Your task to perform on an android device: turn off picture-in-picture Image 0: 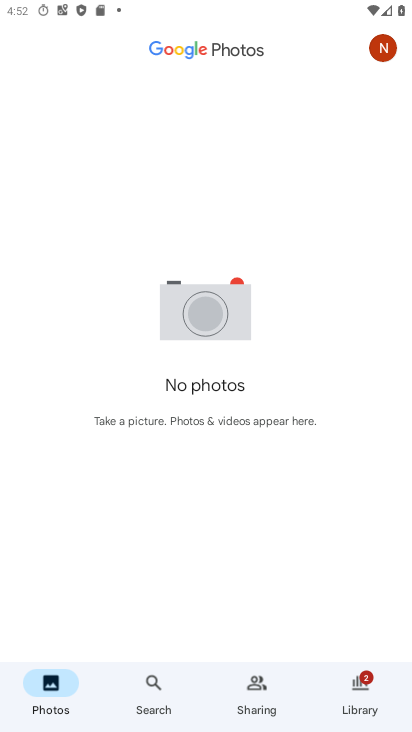
Step 0: click (388, 45)
Your task to perform on an android device: turn off picture-in-picture Image 1: 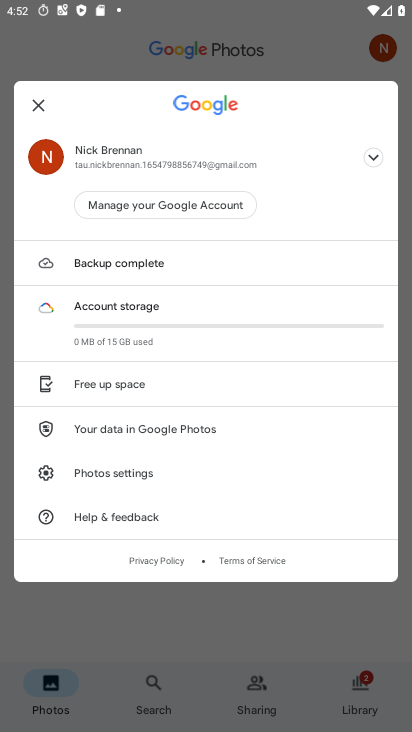
Step 1: click (129, 466)
Your task to perform on an android device: turn off picture-in-picture Image 2: 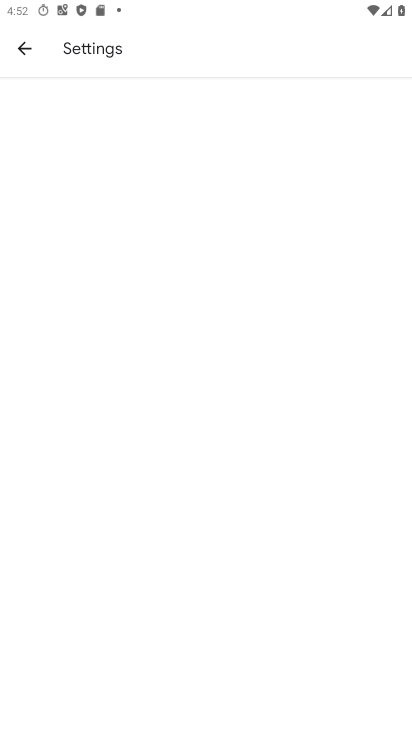
Step 2: press home button
Your task to perform on an android device: turn off picture-in-picture Image 3: 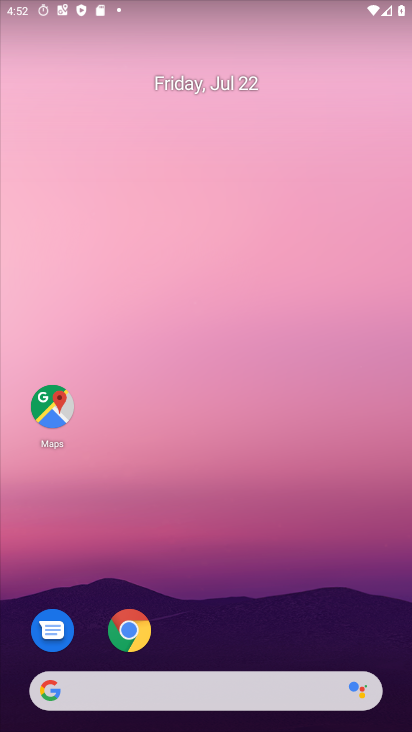
Step 3: drag from (168, 644) to (354, 4)
Your task to perform on an android device: turn off picture-in-picture Image 4: 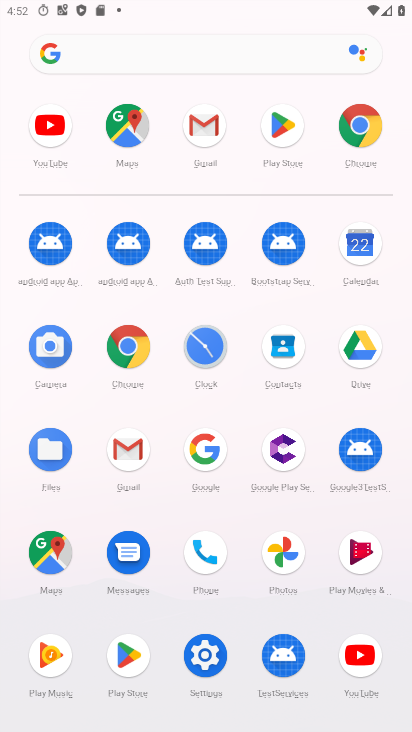
Step 4: click (204, 667)
Your task to perform on an android device: turn off picture-in-picture Image 5: 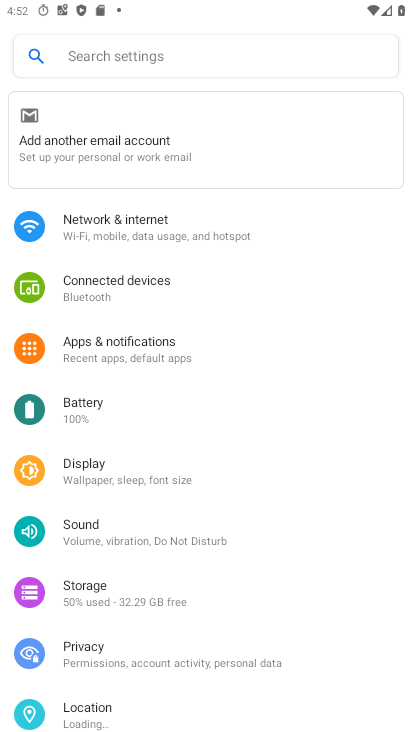
Step 5: click (202, 352)
Your task to perform on an android device: turn off picture-in-picture Image 6: 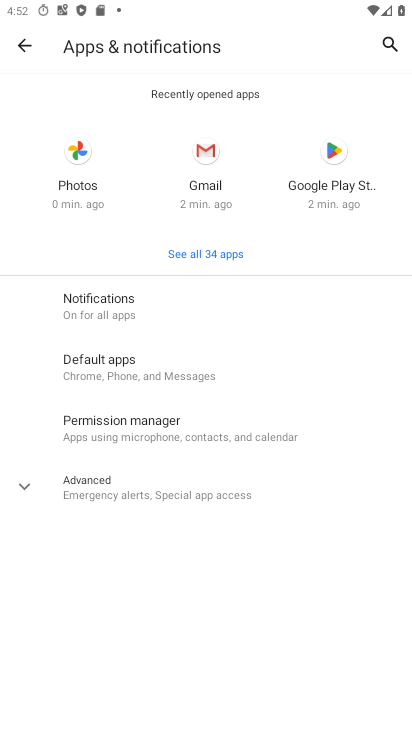
Step 6: click (128, 482)
Your task to perform on an android device: turn off picture-in-picture Image 7: 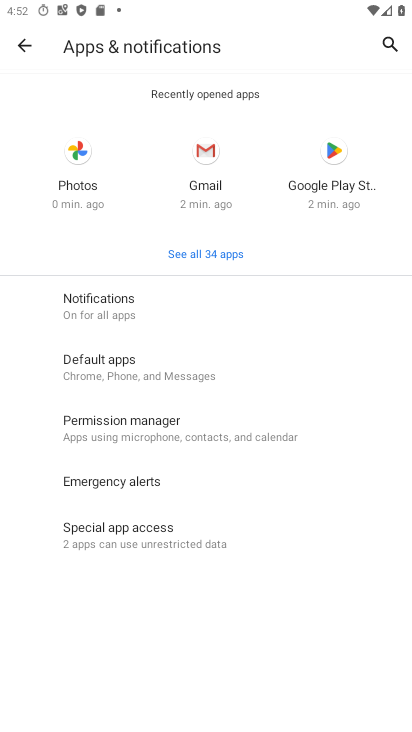
Step 7: click (127, 533)
Your task to perform on an android device: turn off picture-in-picture Image 8: 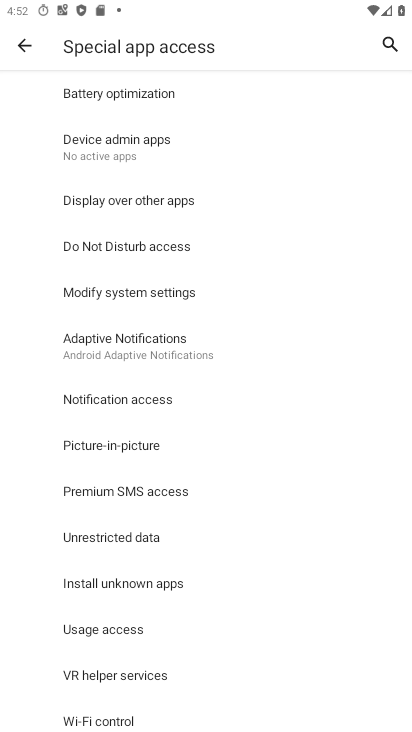
Step 8: click (137, 448)
Your task to perform on an android device: turn off picture-in-picture Image 9: 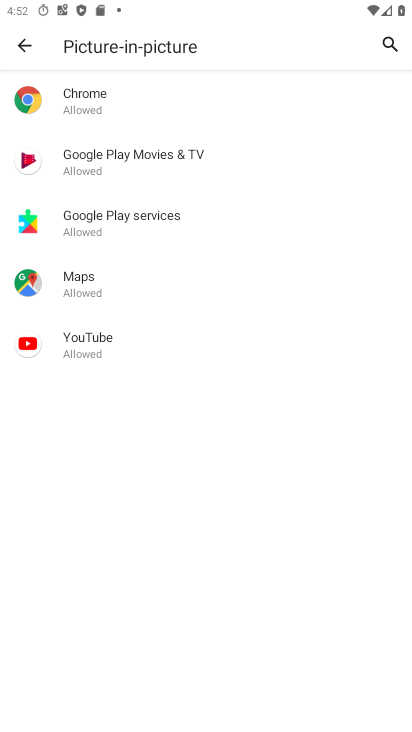
Step 9: click (99, 104)
Your task to perform on an android device: turn off picture-in-picture Image 10: 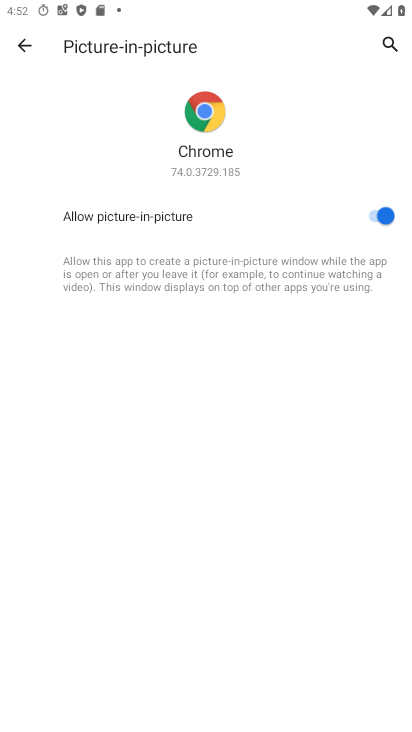
Step 10: click (377, 213)
Your task to perform on an android device: turn off picture-in-picture Image 11: 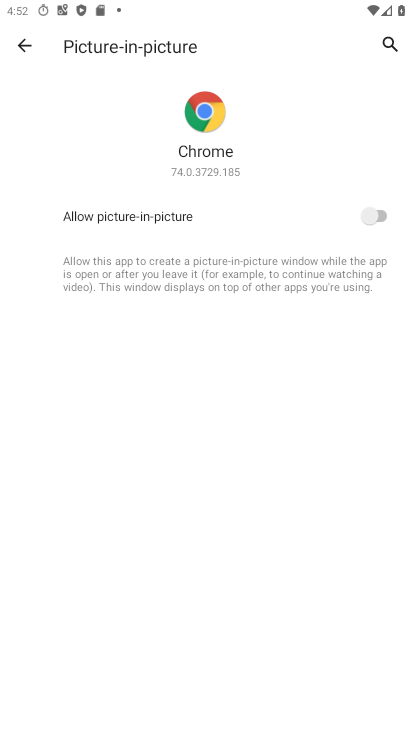
Step 11: press back button
Your task to perform on an android device: turn off picture-in-picture Image 12: 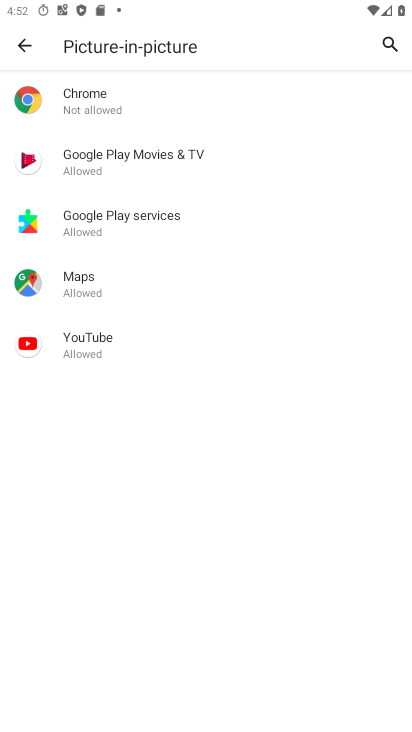
Step 12: click (140, 170)
Your task to perform on an android device: turn off picture-in-picture Image 13: 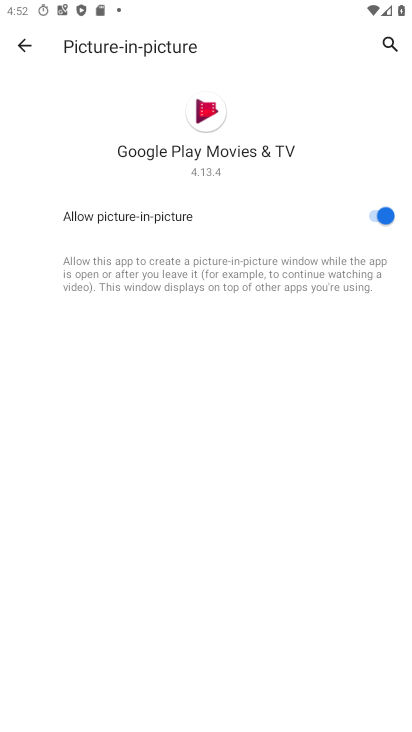
Step 13: click (380, 208)
Your task to perform on an android device: turn off picture-in-picture Image 14: 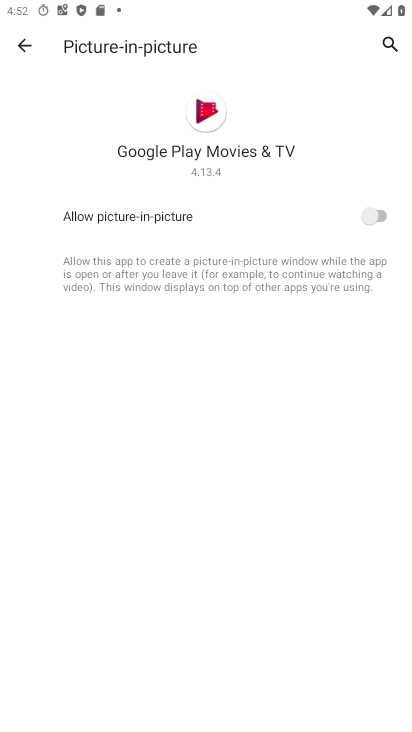
Step 14: press back button
Your task to perform on an android device: turn off picture-in-picture Image 15: 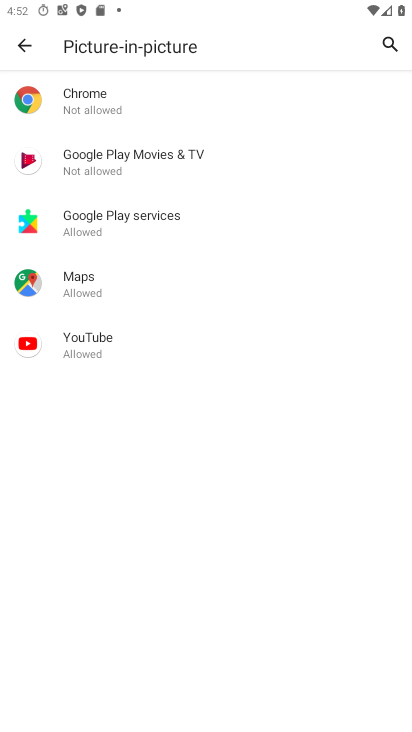
Step 15: click (123, 221)
Your task to perform on an android device: turn off picture-in-picture Image 16: 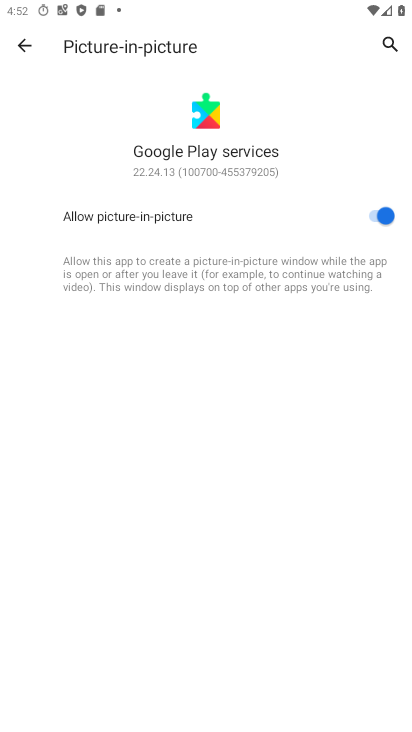
Step 16: click (387, 214)
Your task to perform on an android device: turn off picture-in-picture Image 17: 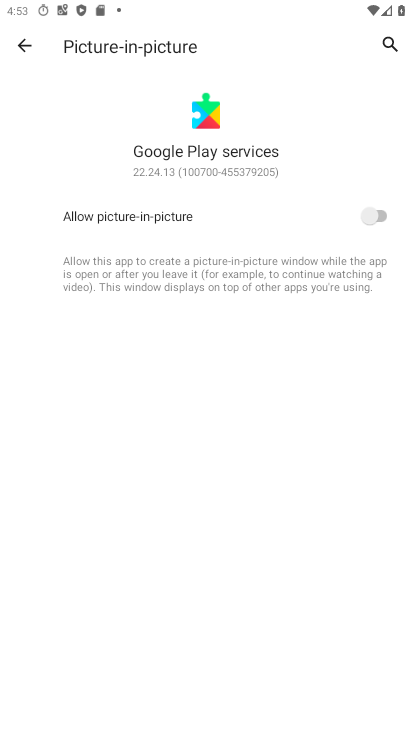
Step 17: press back button
Your task to perform on an android device: turn off picture-in-picture Image 18: 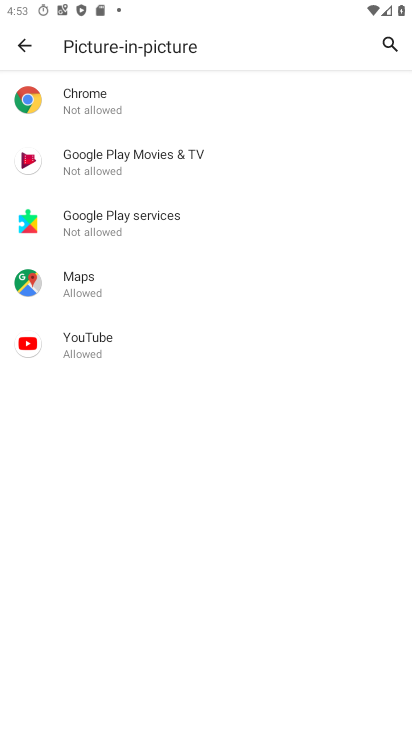
Step 18: click (99, 288)
Your task to perform on an android device: turn off picture-in-picture Image 19: 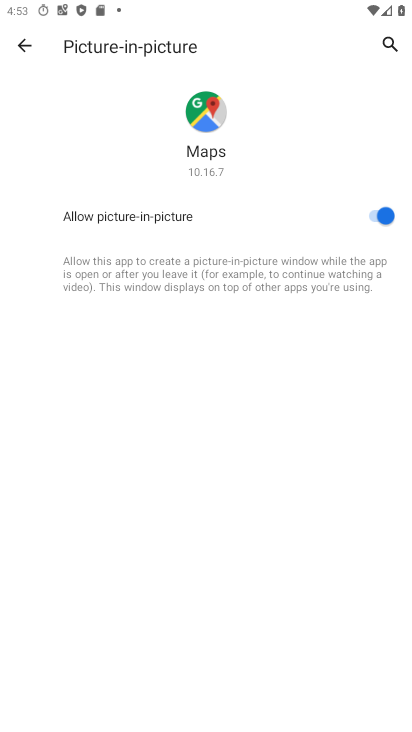
Step 19: click (373, 222)
Your task to perform on an android device: turn off picture-in-picture Image 20: 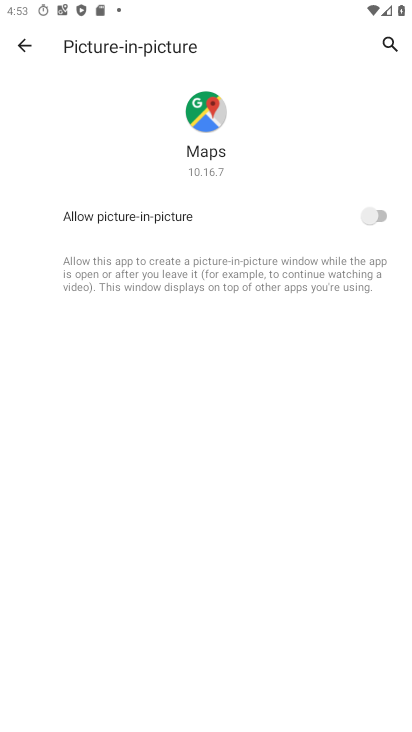
Step 20: press back button
Your task to perform on an android device: turn off picture-in-picture Image 21: 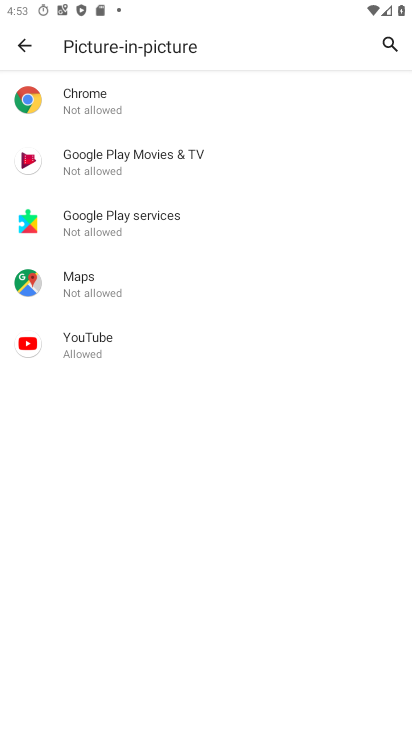
Step 21: click (71, 337)
Your task to perform on an android device: turn off picture-in-picture Image 22: 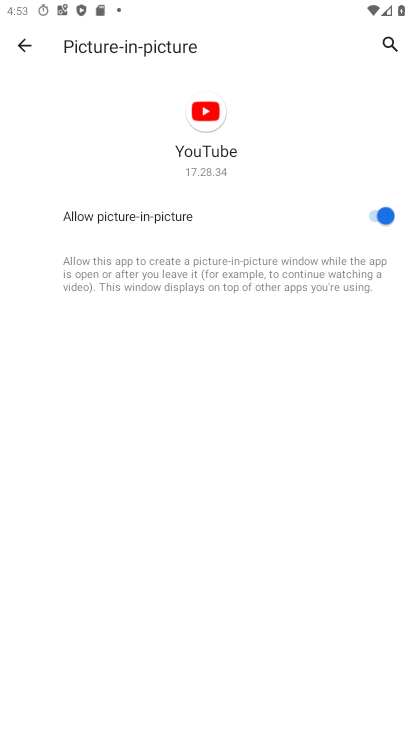
Step 22: click (380, 217)
Your task to perform on an android device: turn off picture-in-picture Image 23: 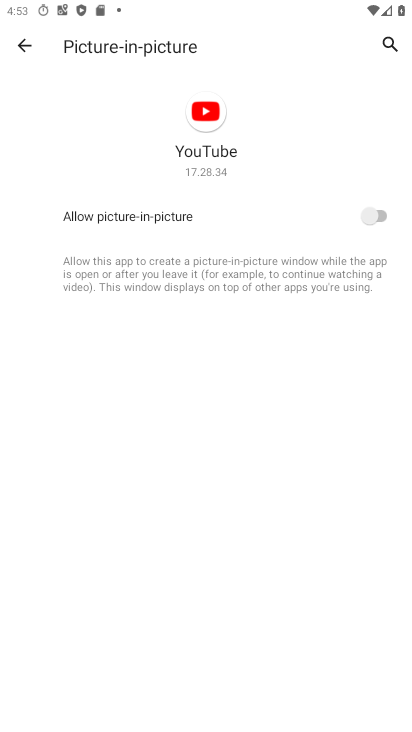
Step 23: task complete